Your task to perform on an android device: Check the weather Image 0: 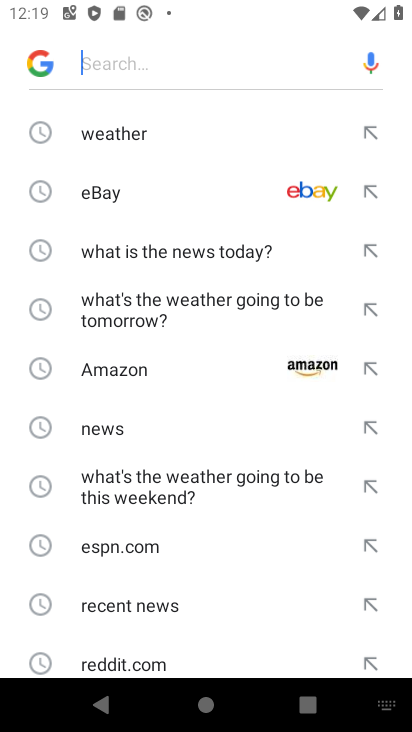
Step 0: click (128, 136)
Your task to perform on an android device: Check the weather Image 1: 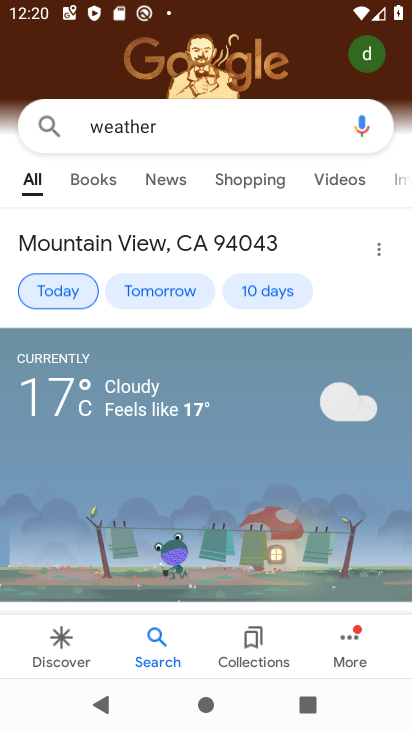
Step 1: task complete